Your task to perform on an android device: Search for seafood restaurants on Google Maps Image 0: 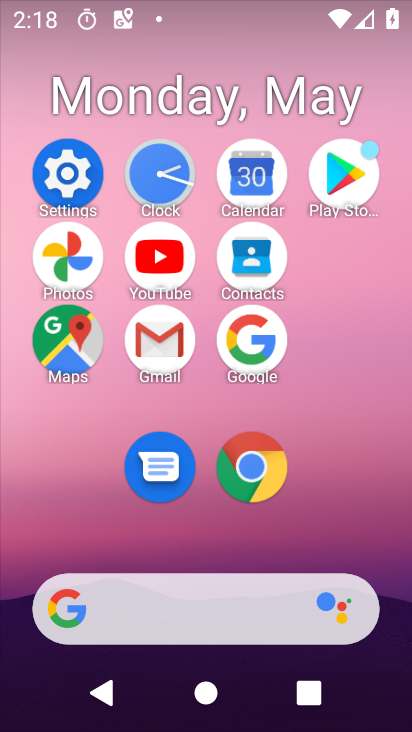
Step 0: click (86, 336)
Your task to perform on an android device: Search for seafood restaurants on Google Maps Image 1: 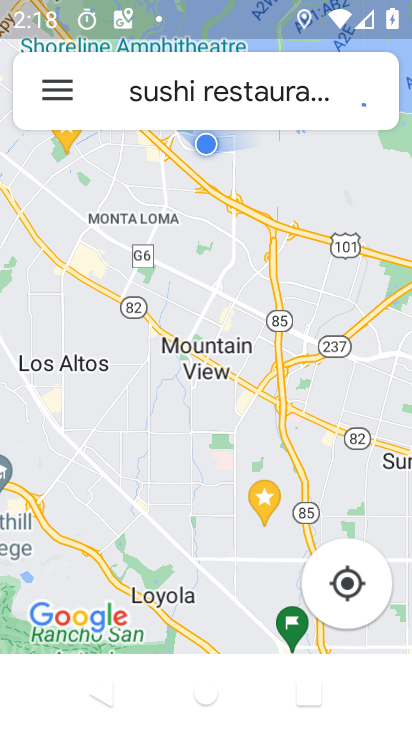
Step 1: click (286, 89)
Your task to perform on an android device: Search for seafood restaurants on Google Maps Image 2: 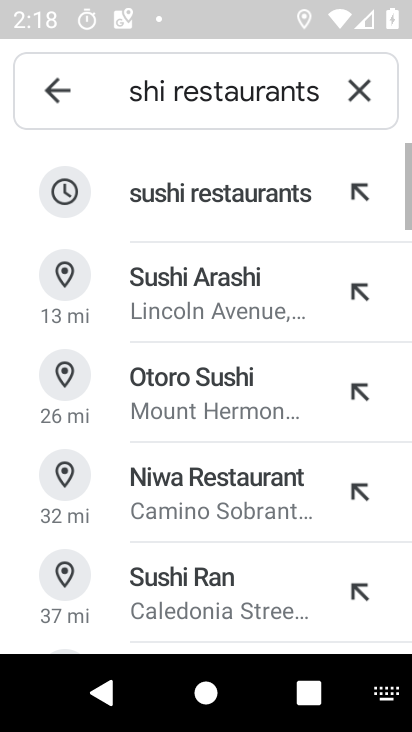
Step 2: click (368, 71)
Your task to perform on an android device: Search for seafood restaurants on Google Maps Image 3: 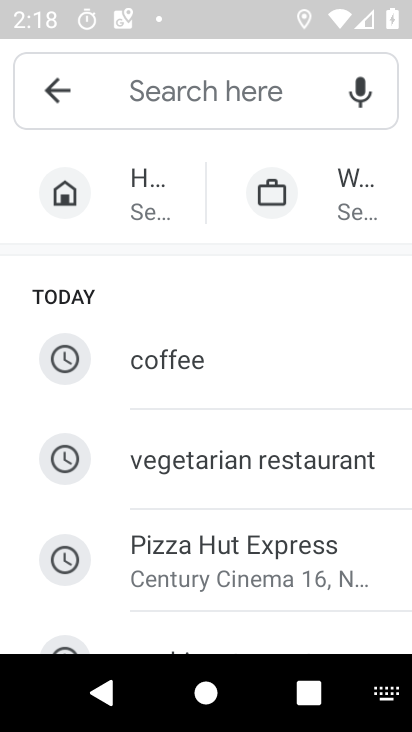
Step 3: drag from (308, 523) to (241, 156)
Your task to perform on an android device: Search for seafood restaurants on Google Maps Image 4: 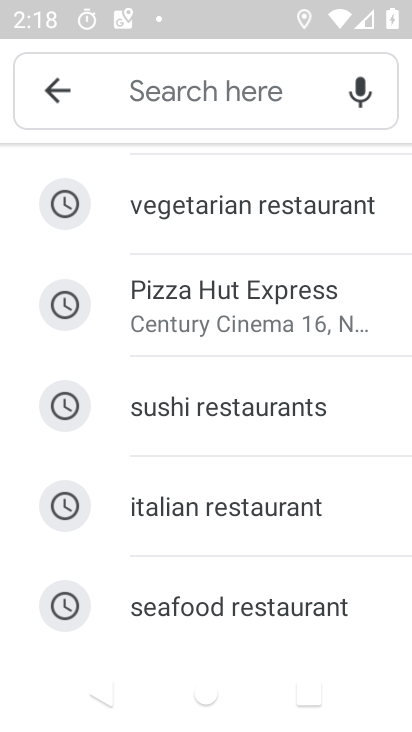
Step 4: click (257, 606)
Your task to perform on an android device: Search for seafood restaurants on Google Maps Image 5: 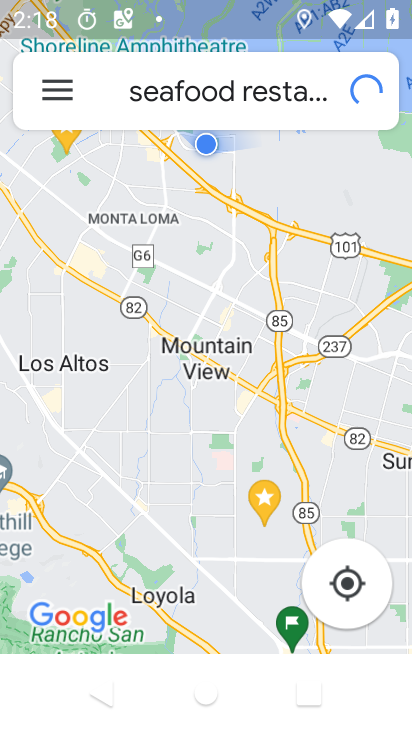
Step 5: task complete